Your task to perform on an android device: Go to privacy settings Image 0: 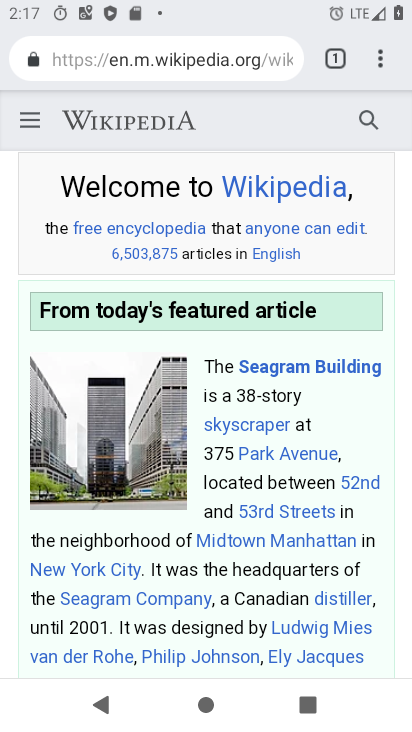
Step 0: press home button
Your task to perform on an android device: Go to privacy settings Image 1: 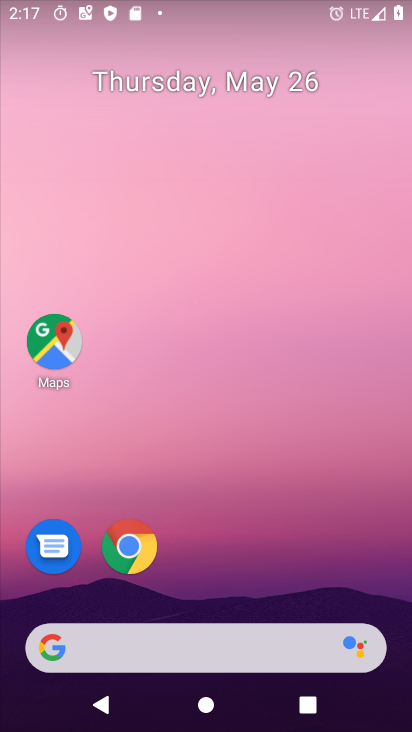
Step 1: click (118, 545)
Your task to perform on an android device: Go to privacy settings Image 2: 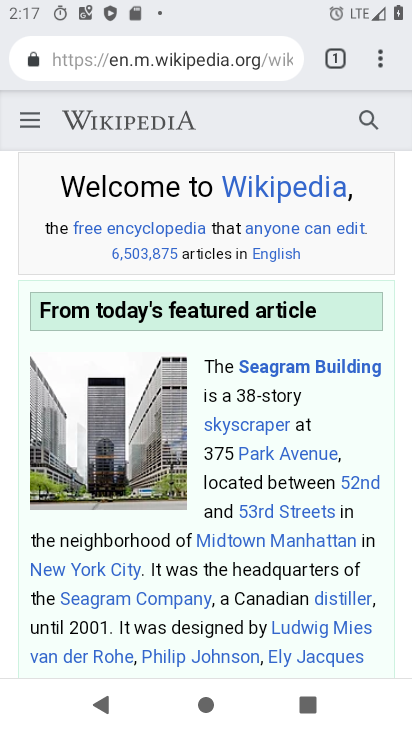
Step 2: click (374, 57)
Your task to perform on an android device: Go to privacy settings Image 3: 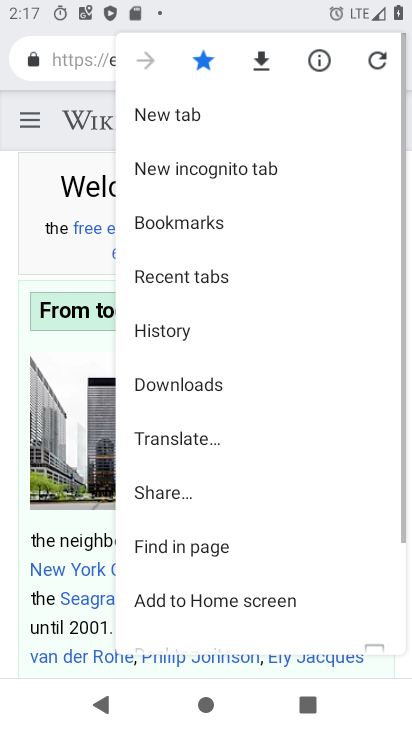
Step 3: drag from (196, 575) to (247, 155)
Your task to perform on an android device: Go to privacy settings Image 4: 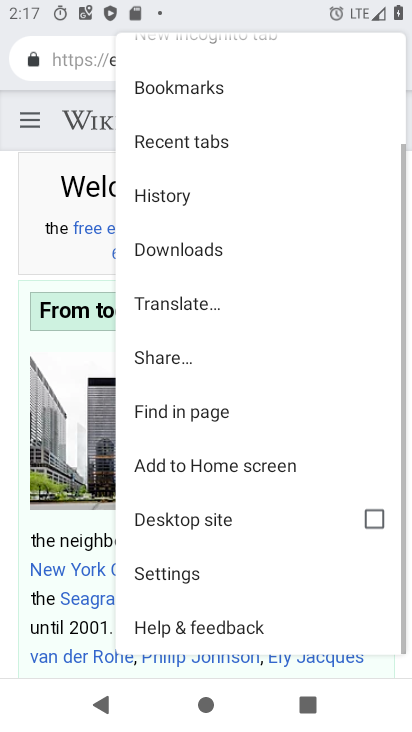
Step 4: click (182, 581)
Your task to perform on an android device: Go to privacy settings Image 5: 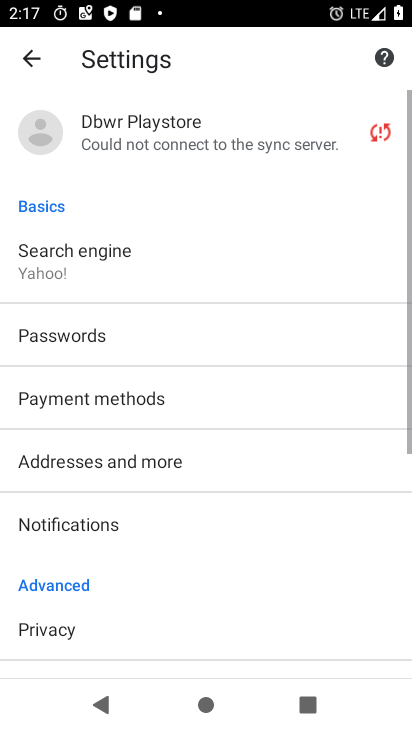
Step 5: click (53, 620)
Your task to perform on an android device: Go to privacy settings Image 6: 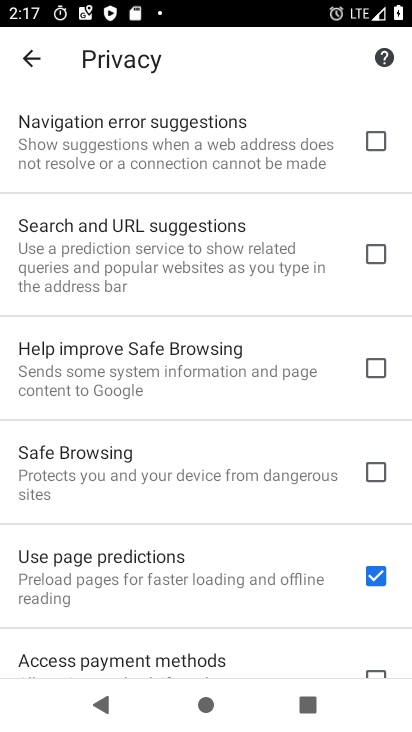
Step 6: task complete